Your task to perform on an android device: Go to Wikipedia Image 0: 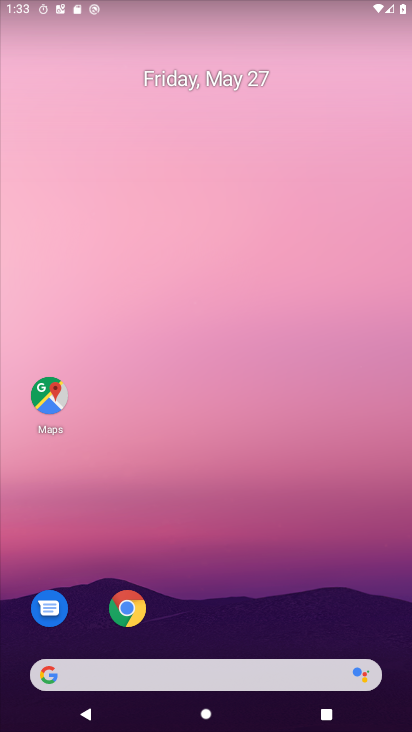
Step 0: click (130, 613)
Your task to perform on an android device: Go to Wikipedia Image 1: 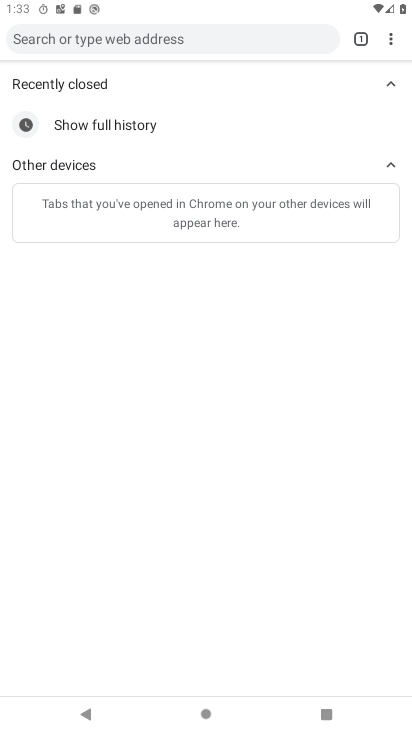
Step 1: click (169, 48)
Your task to perform on an android device: Go to Wikipedia Image 2: 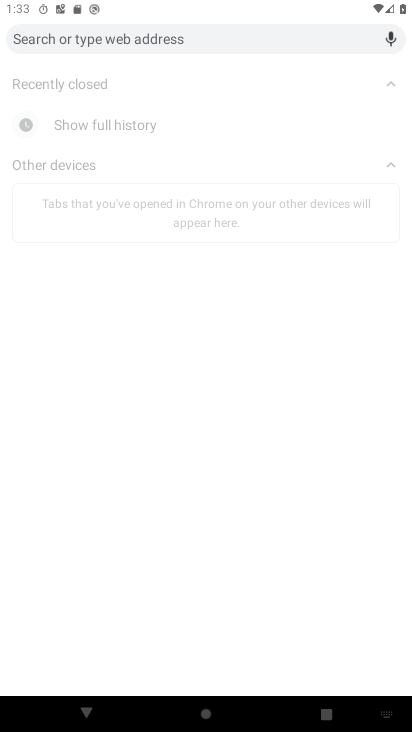
Step 2: type "Wikipedia"
Your task to perform on an android device: Go to Wikipedia Image 3: 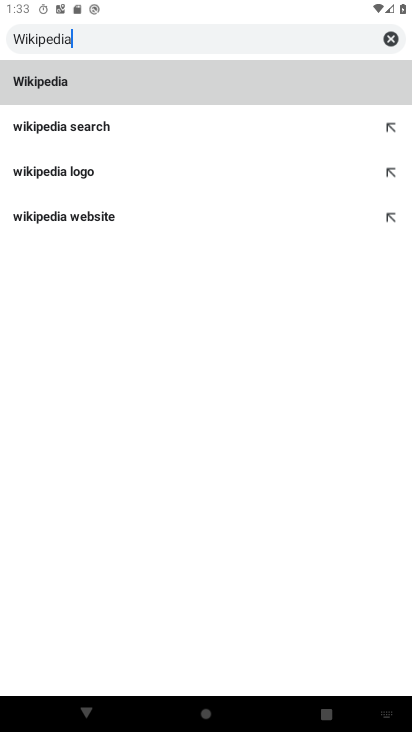
Step 3: click (21, 83)
Your task to perform on an android device: Go to Wikipedia Image 4: 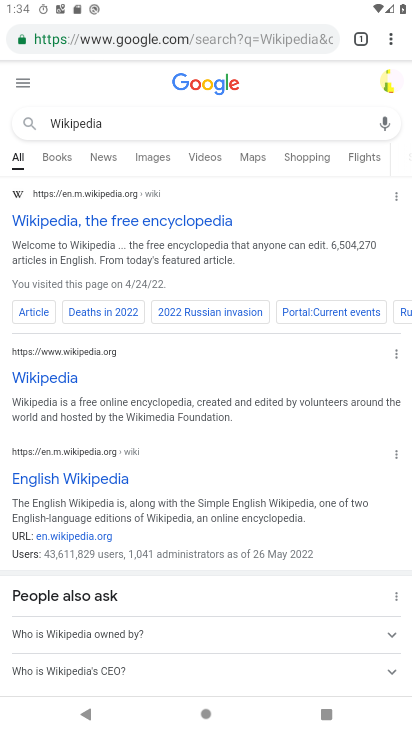
Step 4: task complete